Your task to perform on an android device: turn smart compose on in the gmail app Image 0: 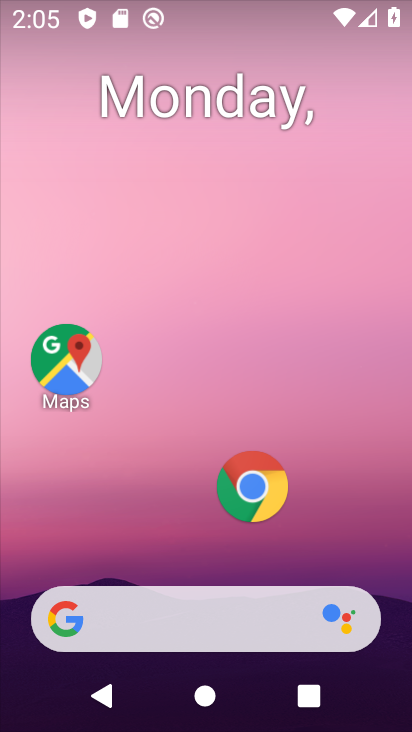
Step 0: drag from (164, 499) to (223, 162)
Your task to perform on an android device: turn smart compose on in the gmail app Image 1: 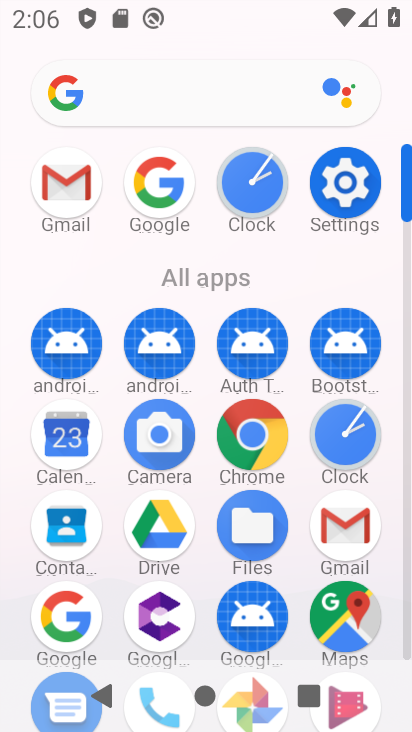
Step 1: click (343, 525)
Your task to perform on an android device: turn smart compose on in the gmail app Image 2: 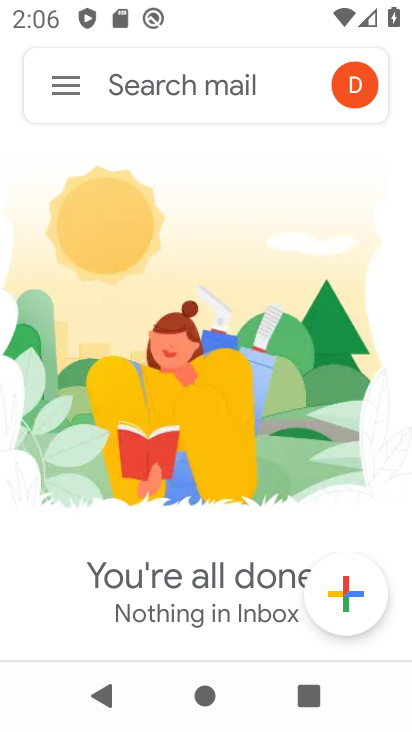
Step 2: click (67, 90)
Your task to perform on an android device: turn smart compose on in the gmail app Image 3: 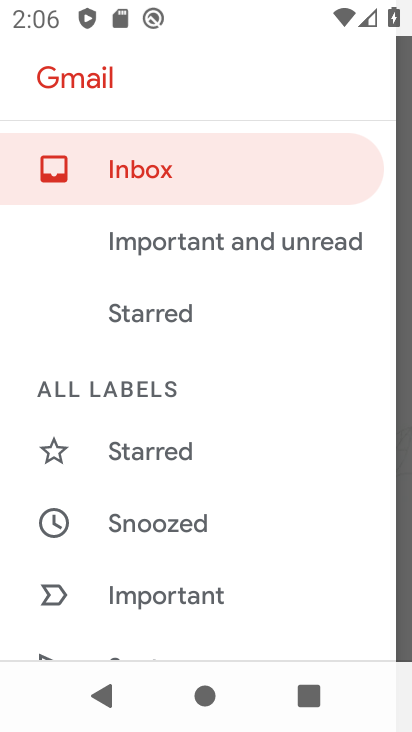
Step 3: drag from (144, 619) to (248, 171)
Your task to perform on an android device: turn smart compose on in the gmail app Image 4: 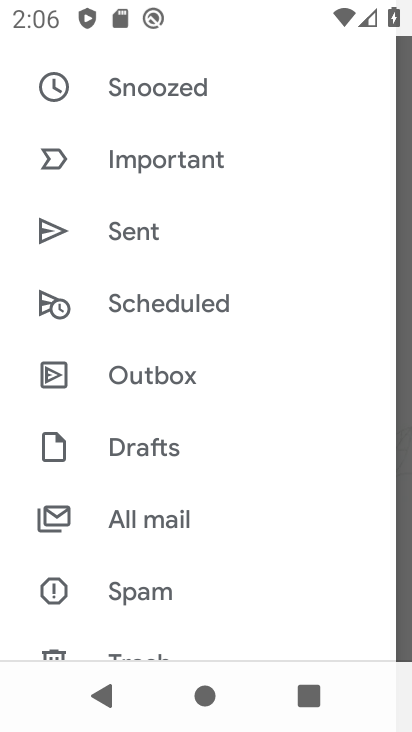
Step 4: drag from (262, 584) to (352, 136)
Your task to perform on an android device: turn smart compose on in the gmail app Image 5: 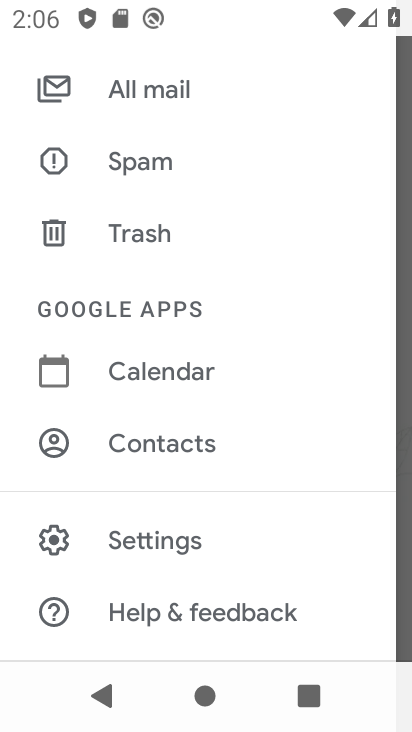
Step 5: click (193, 558)
Your task to perform on an android device: turn smart compose on in the gmail app Image 6: 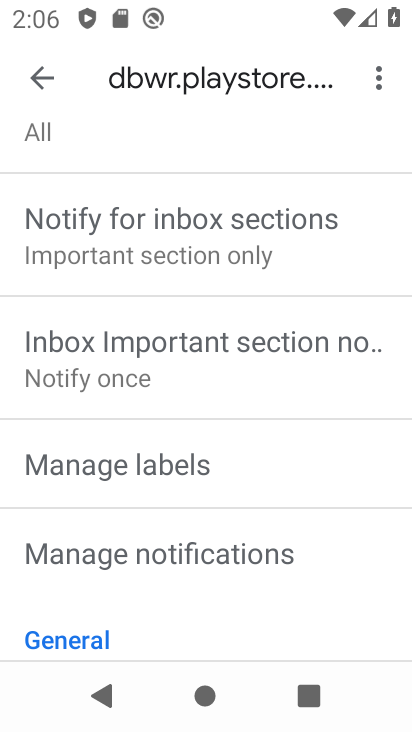
Step 6: task complete